Your task to perform on an android device: set the timer Image 0: 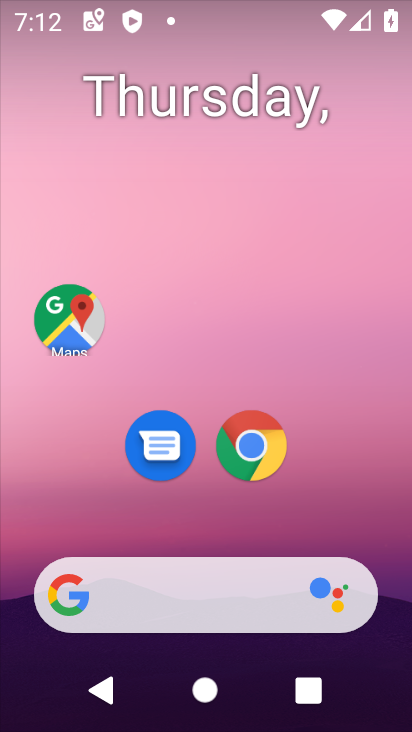
Step 0: drag from (317, 485) to (260, 72)
Your task to perform on an android device: set the timer Image 1: 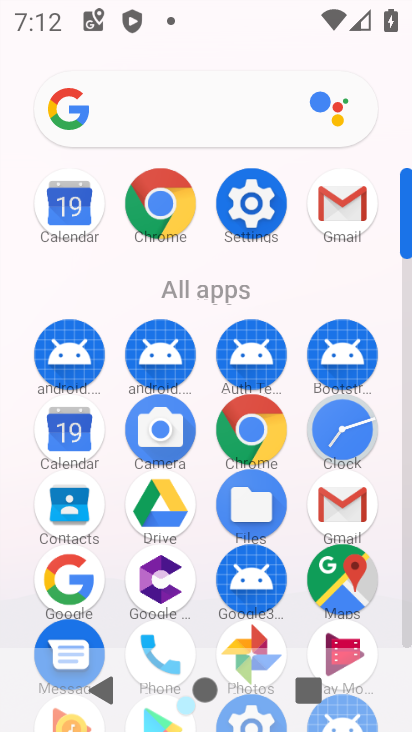
Step 1: click (249, 206)
Your task to perform on an android device: set the timer Image 2: 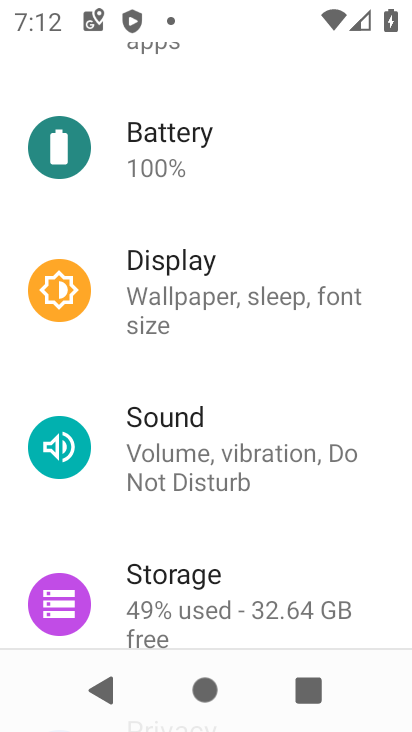
Step 2: press home button
Your task to perform on an android device: set the timer Image 3: 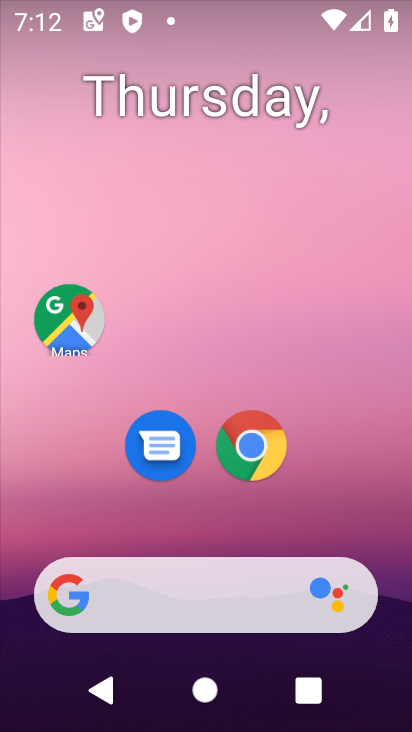
Step 3: drag from (336, 505) to (249, 90)
Your task to perform on an android device: set the timer Image 4: 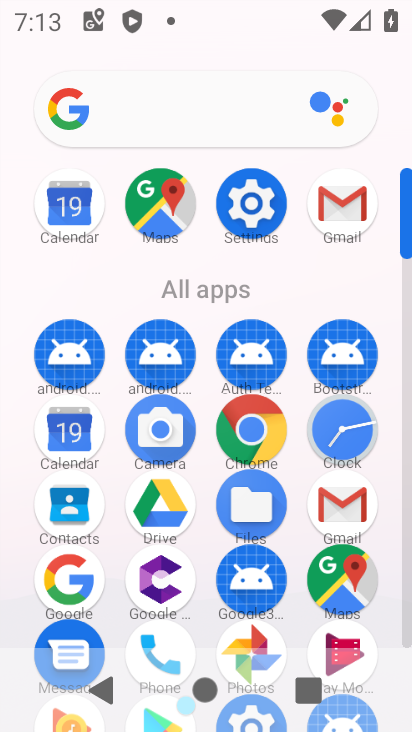
Step 4: click (341, 435)
Your task to perform on an android device: set the timer Image 5: 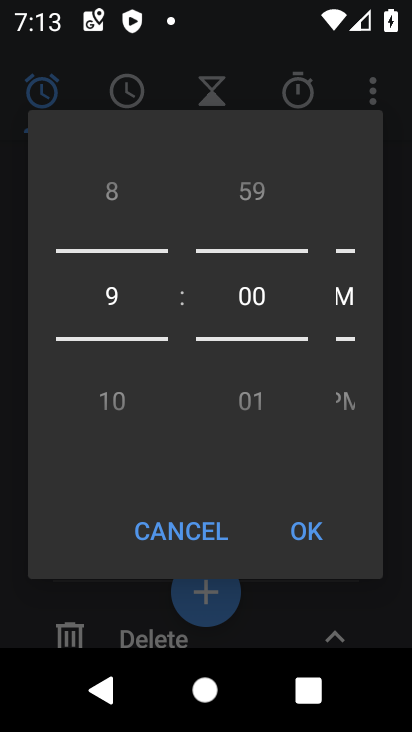
Step 5: click (315, 530)
Your task to perform on an android device: set the timer Image 6: 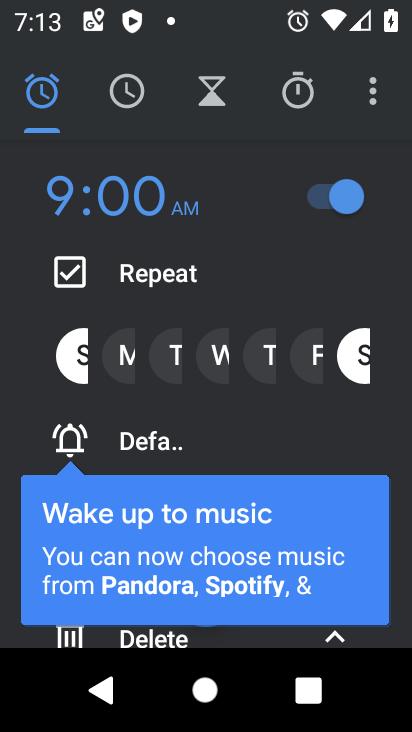
Step 6: click (214, 79)
Your task to perform on an android device: set the timer Image 7: 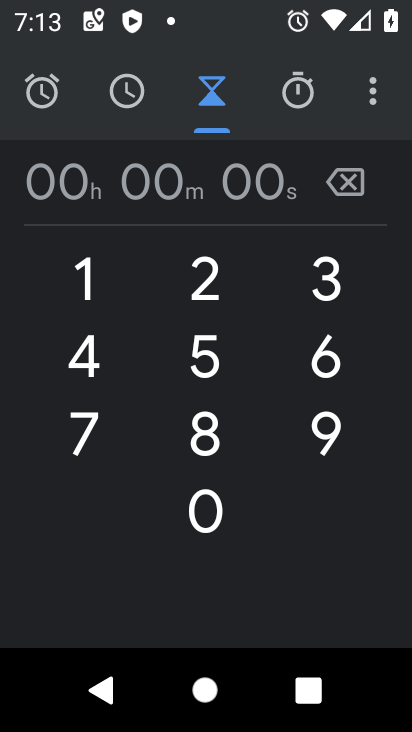
Step 7: click (79, 267)
Your task to perform on an android device: set the timer Image 8: 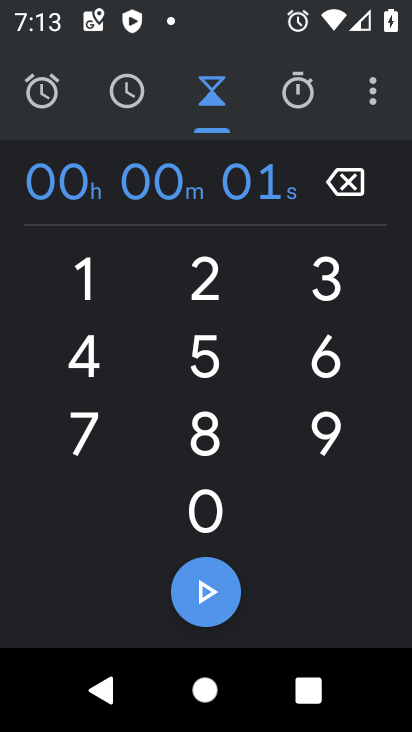
Step 8: click (79, 267)
Your task to perform on an android device: set the timer Image 9: 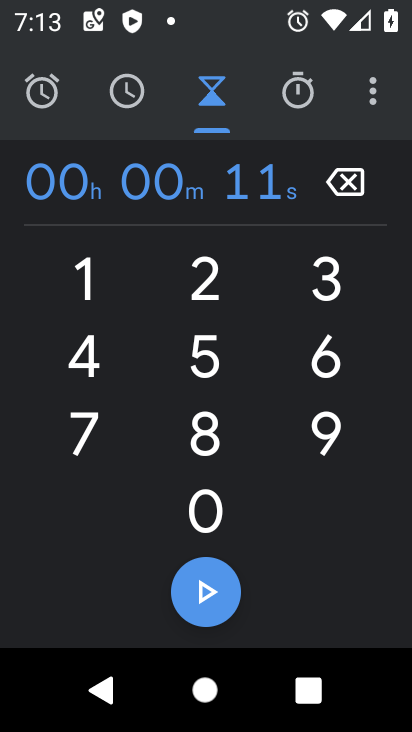
Step 9: click (79, 267)
Your task to perform on an android device: set the timer Image 10: 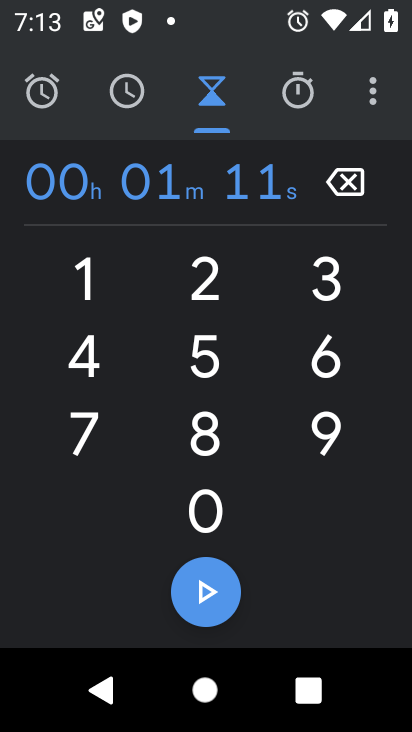
Step 10: click (79, 267)
Your task to perform on an android device: set the timer Image 11: 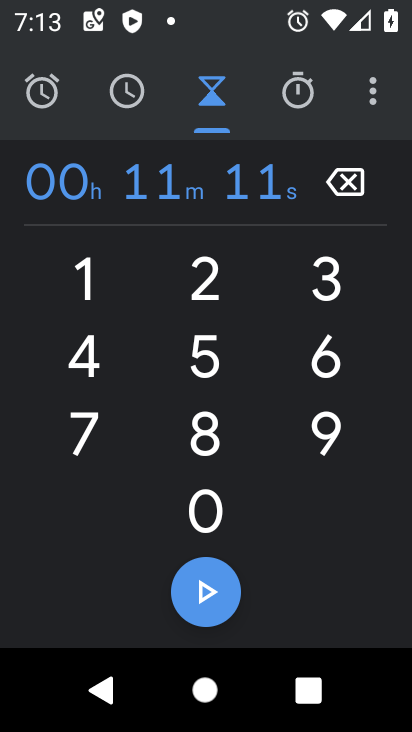
Step 11: click (79, 267)
Your task to perform on an android device: set the timer Image 12: 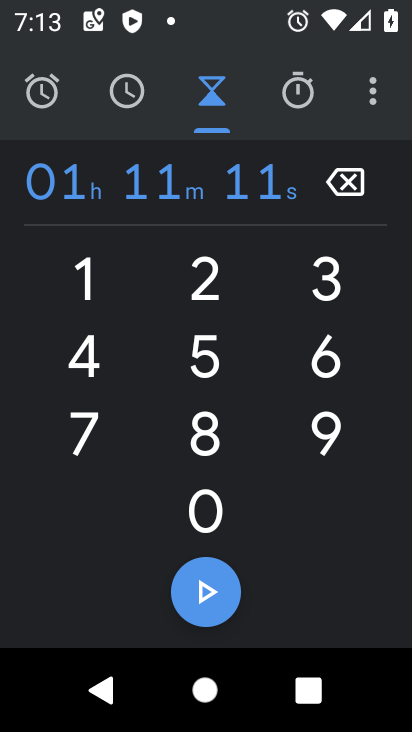
Step 12: task complete